Your task to perform on an android device: turn on translation in the chrome app Image 0: 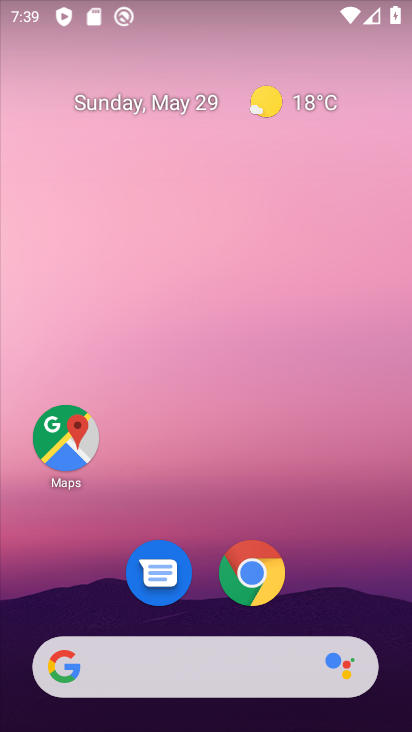
Step 0: click (257, 582)
Your task to perform on an android device: turn on translation in the chrome app Image 1: 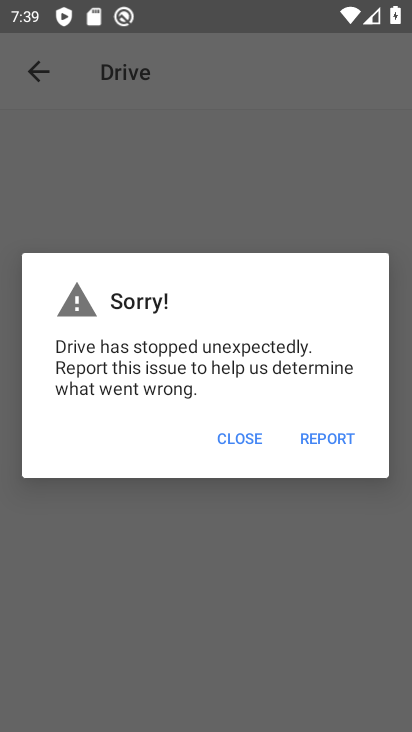
Step 1: press home button
Your task to perform on an android device: turn on translation in the chrome app Image 2: 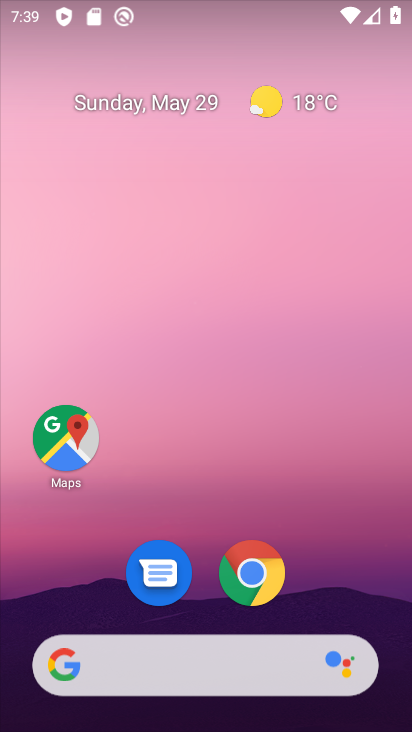
Step 2: click (264, 580)
Your task to perform on an android device: turn on translation in the chrome app Image 3: 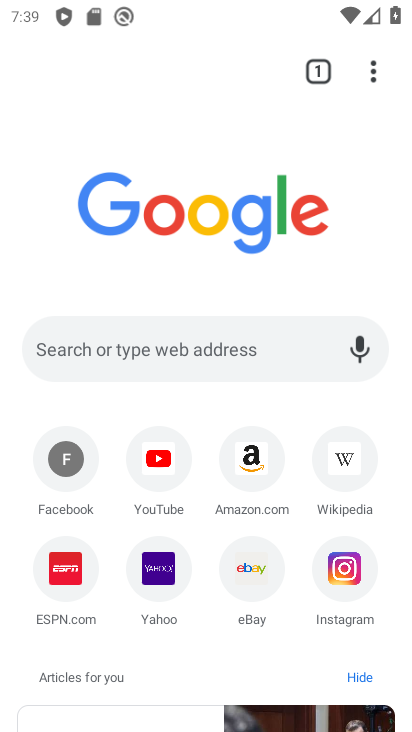
Step 3: drag from (378, 83) to (217, 615)
Your task to perform on an android device: turn on translation in the chrome app Image 4: 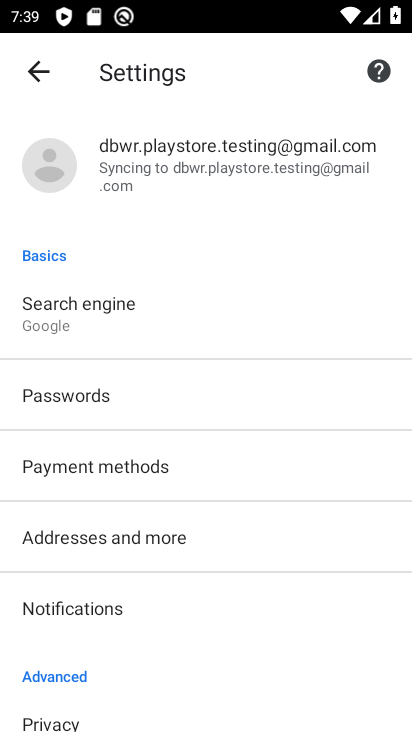
Step 4: drag from (251, 668) to (358, 170)
Your task to perform on an android device: turn on translation in the chrome app Image 5: 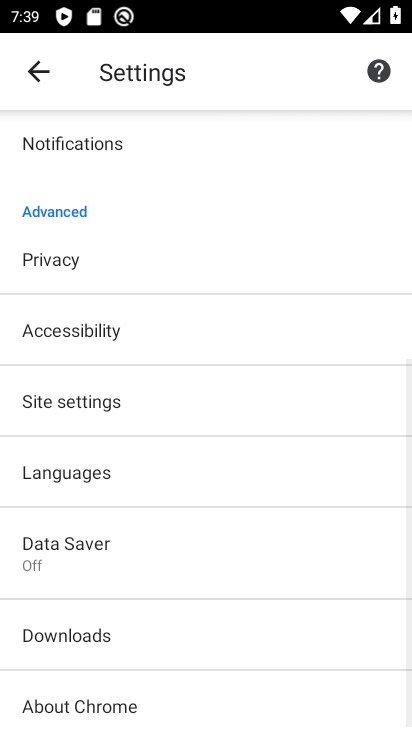
Step 5: click (165, 475)
Your task to perform on an android device: turn on translation in the chrome app Image 6: 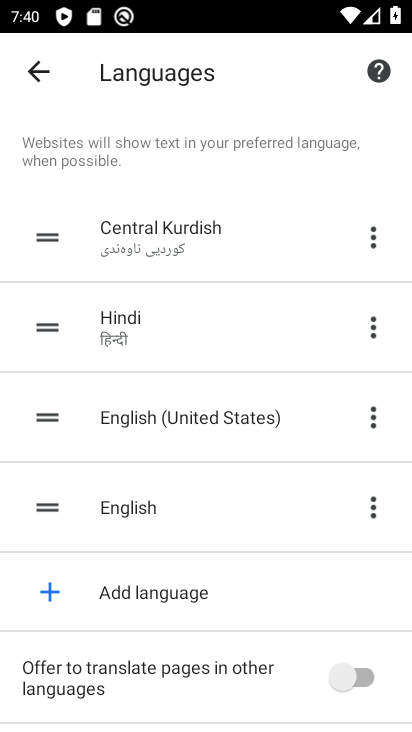
Step 6: drag from (181, 630) to (303, 281)
Your task to perform on an android device: turn on translation in the chrome app Image 7: 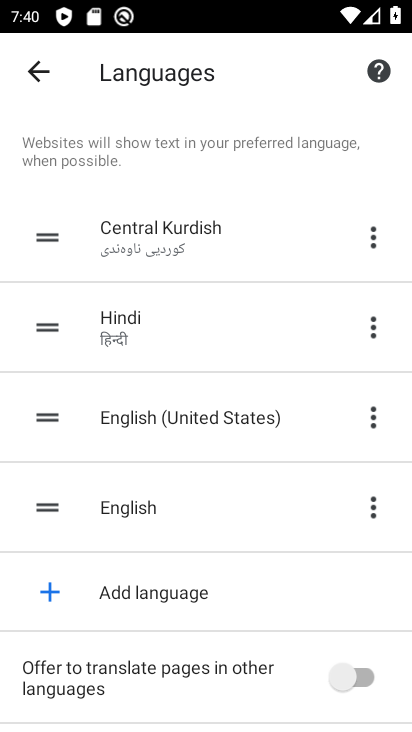
Step 7: click (387, 689)
Your task to perform on an android device: turn on translation in the chrome app Image 8: 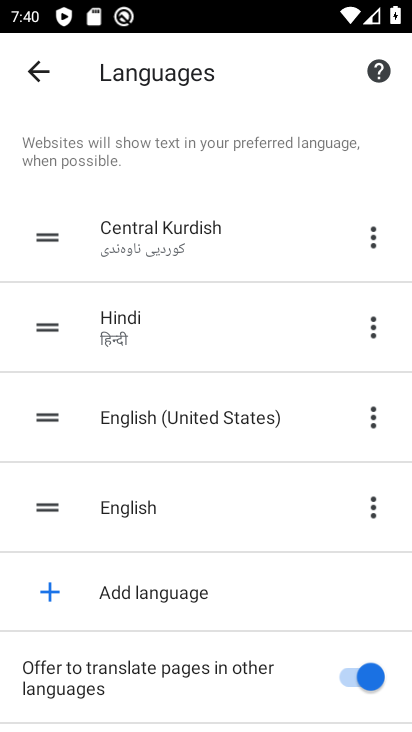
Step 8: task complete